Your task to perform on an android device: When is my next appointment? Image 0: 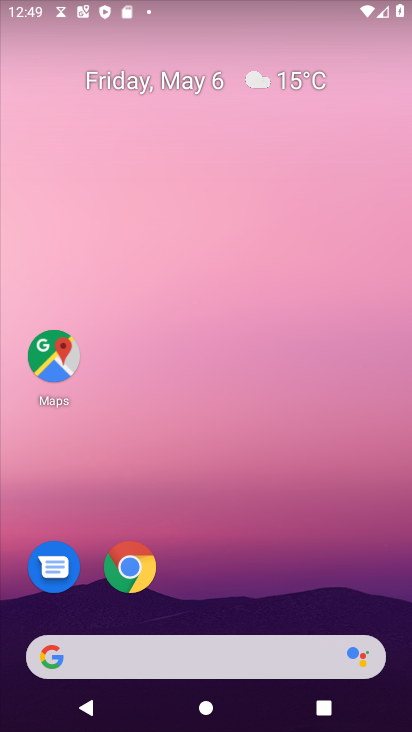
Step 0: drag from (241, 500) to (315, 92)
Your task to perform on an android device: When is my next appointment? Image 1: 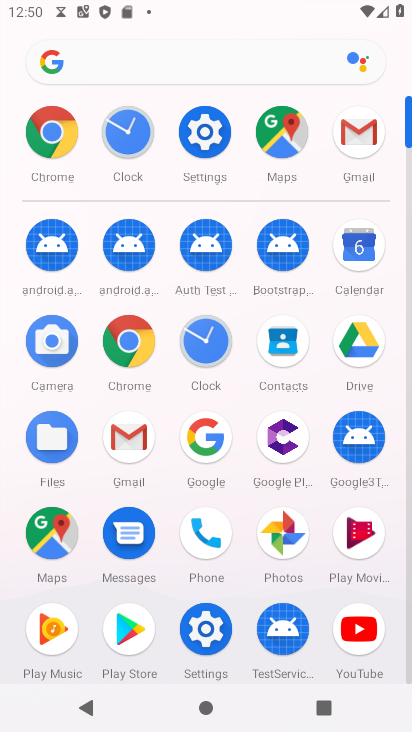
Step 1: click (354, 260)
Your task to perform on an android device: When is my next appointment? Image 2: 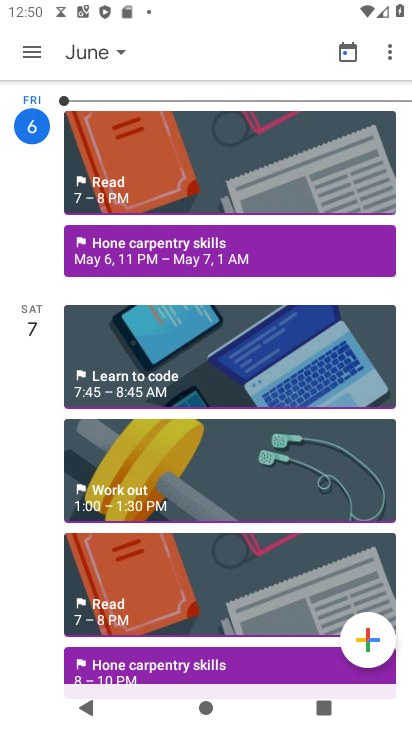
Step 2: click (99, 56)
Your task to perform on an android device: When is my next appointment? Image 3: 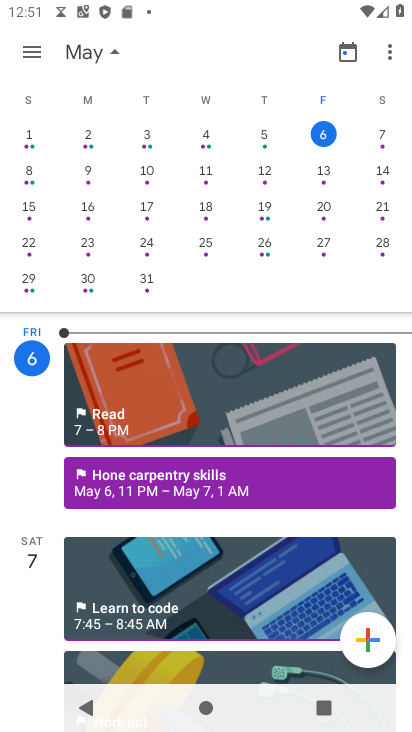
Step 3: click (377, 137)
Your task to perform on an android device: When is my next appointment? Image 4: 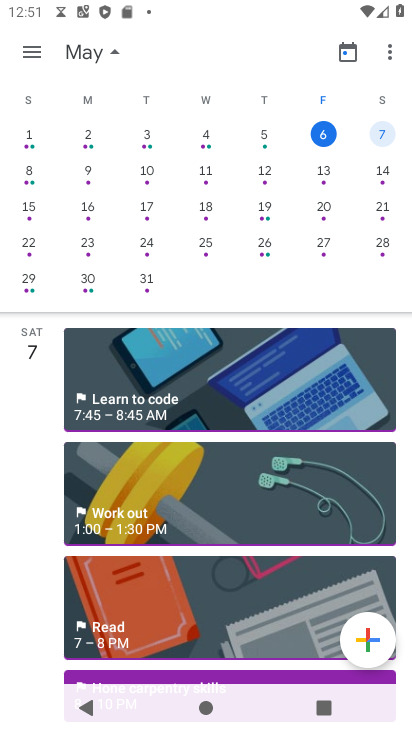
Step 4: task complete